Your task to perform on an android device: open app "Walmart Shopping & Grocery" Image 0: 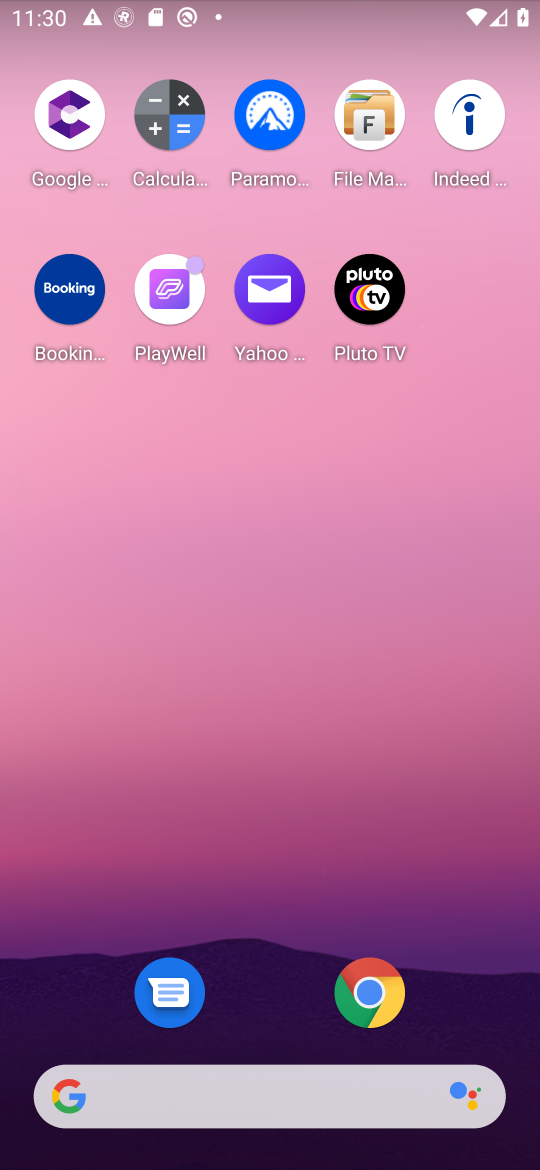
Step 0: drag from (234, 1103) to (236, 154)
Your task to perform on an android device: open app "Walmart Shopping & Grocery" Image 1: 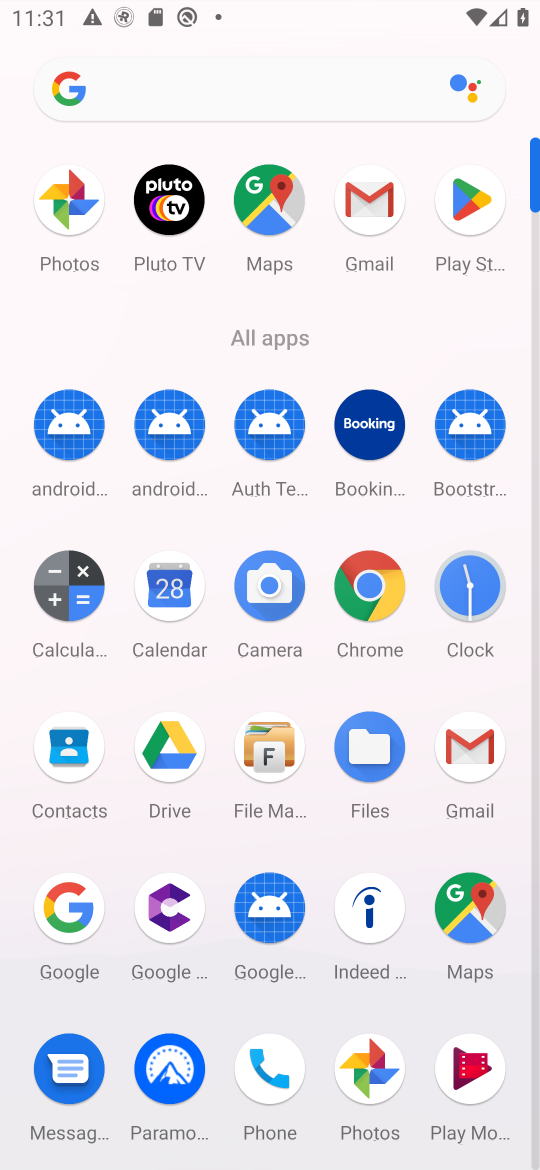
Step 1: click (472, 207)
Your task to perform on an android device: open app "Walmart Shopping & Grocery" Image 2: 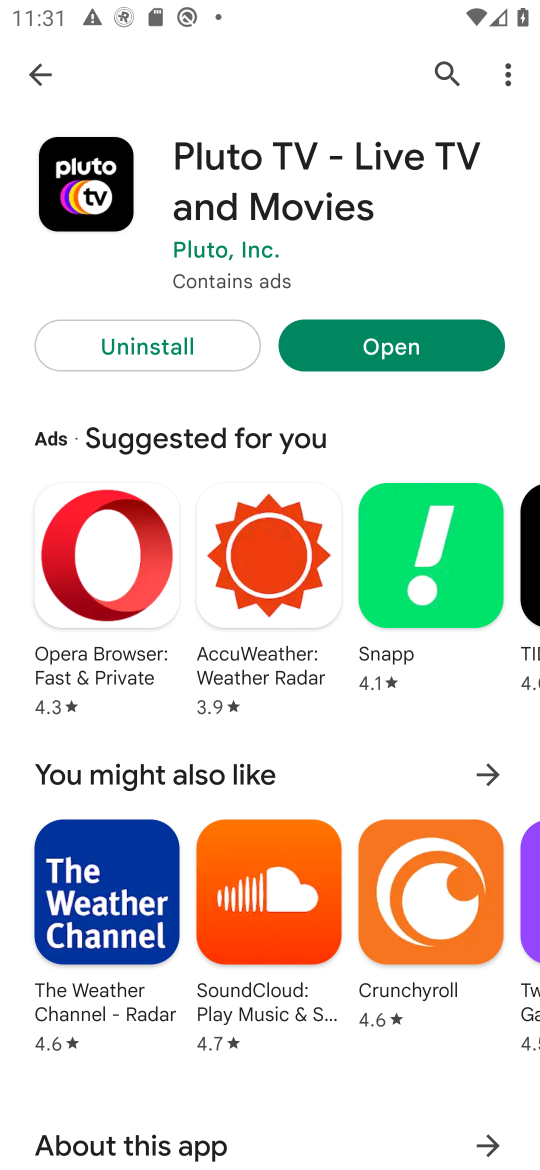
Step 2: click (443, 76)
Your task to perform on an android device: open app "Walmart Shopping & Grocery" Image 3: 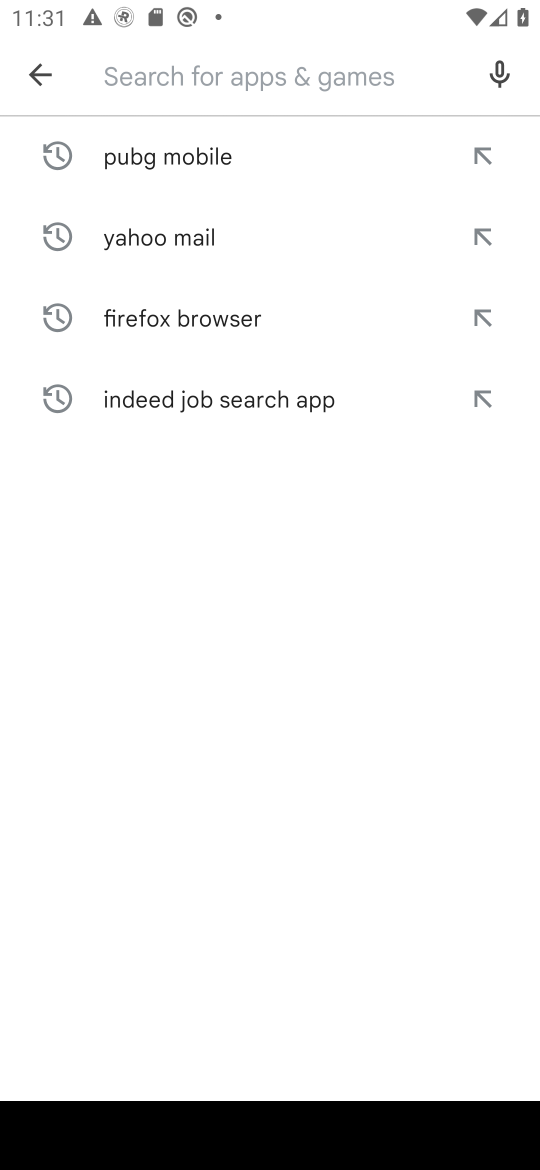
Step 3: type "Walmart Shopping & Grocery"
Your task to perform on an android device: open app "Walmart Shopping & Grocery" Image 4: 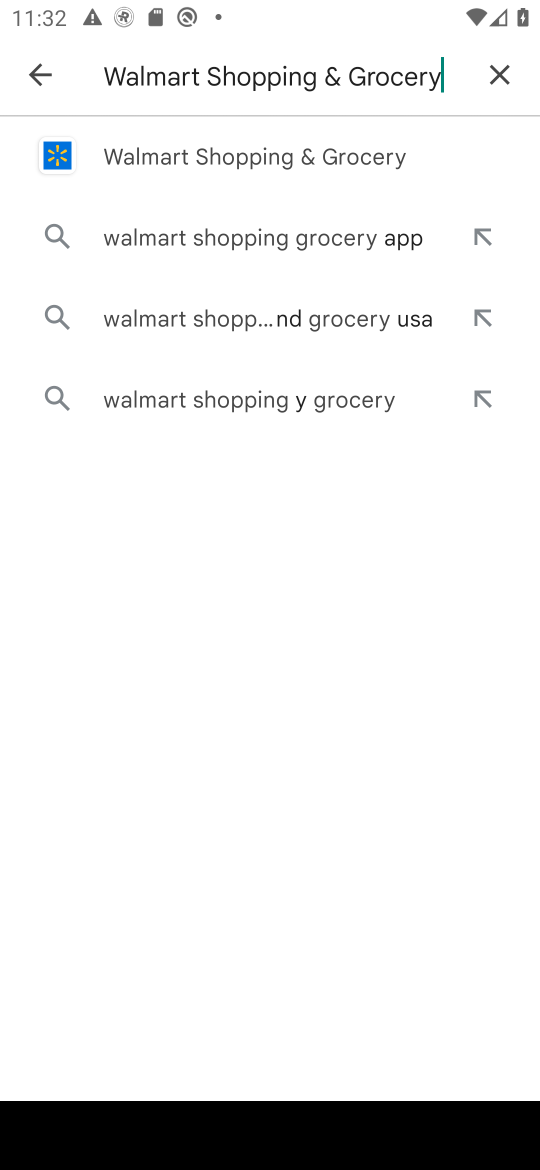
Step 4: click (157, 155)
Your task to perform on an android device: open app "Walmart Shopping & Grocery" Image 5: 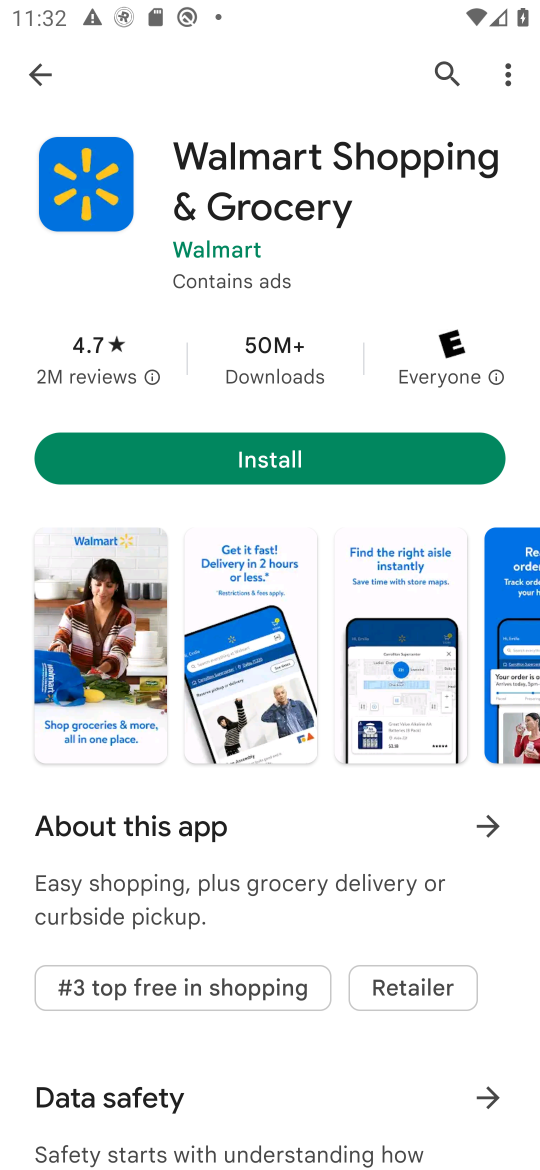
Step 5: task complete